Your task to perform on an android device: turn off location Image 0: 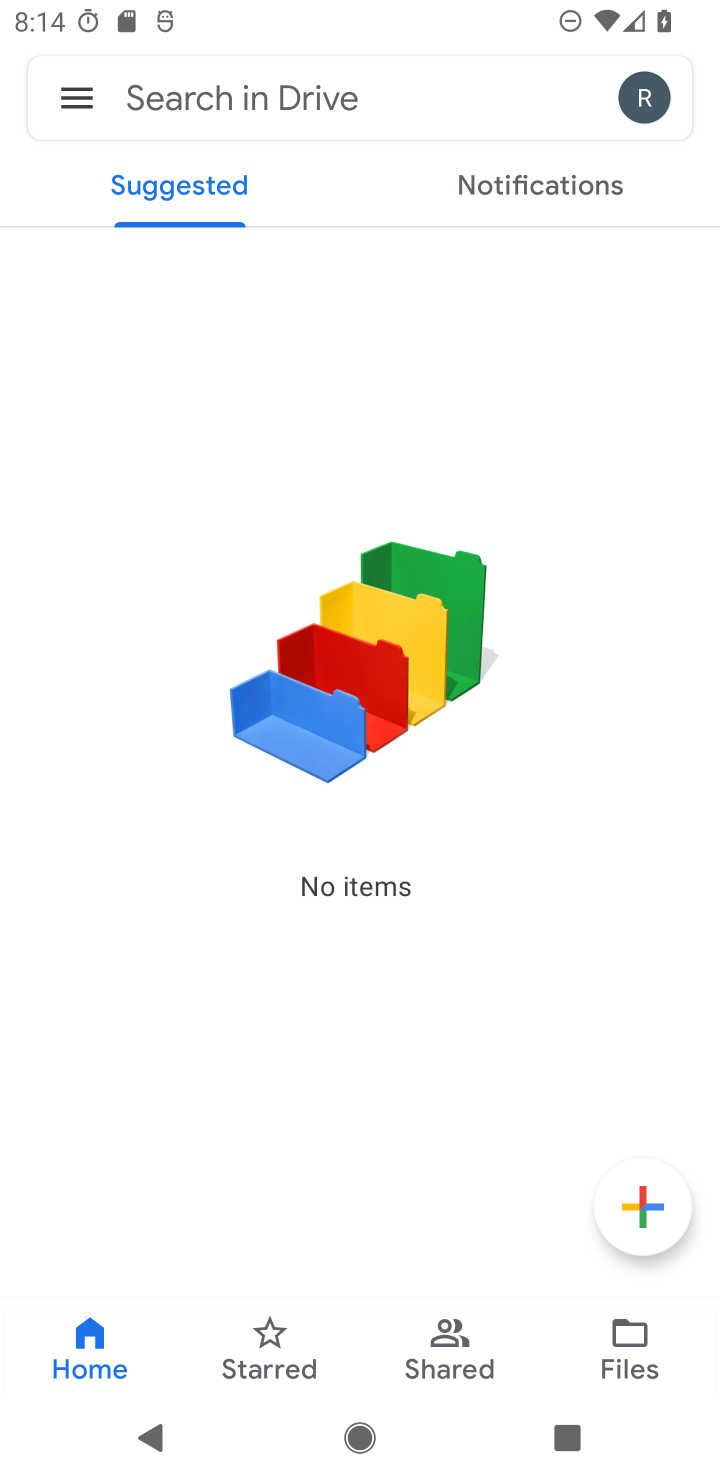
Step 0: press home button
Your task to perform on an android device: turn off location Image 1: 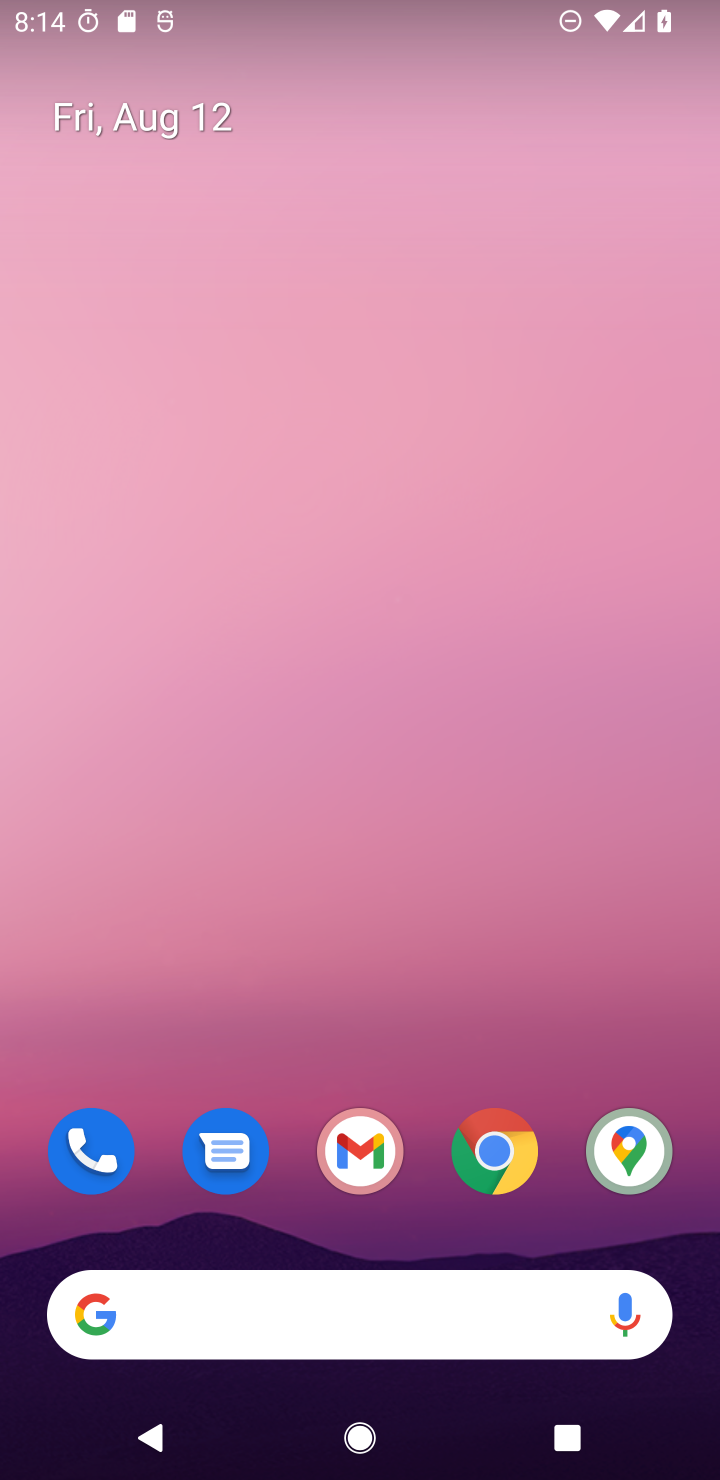
Step 1: drag from (426, 703) to (390, 66)
Your task to perform on an android device: turn off location Image 2: 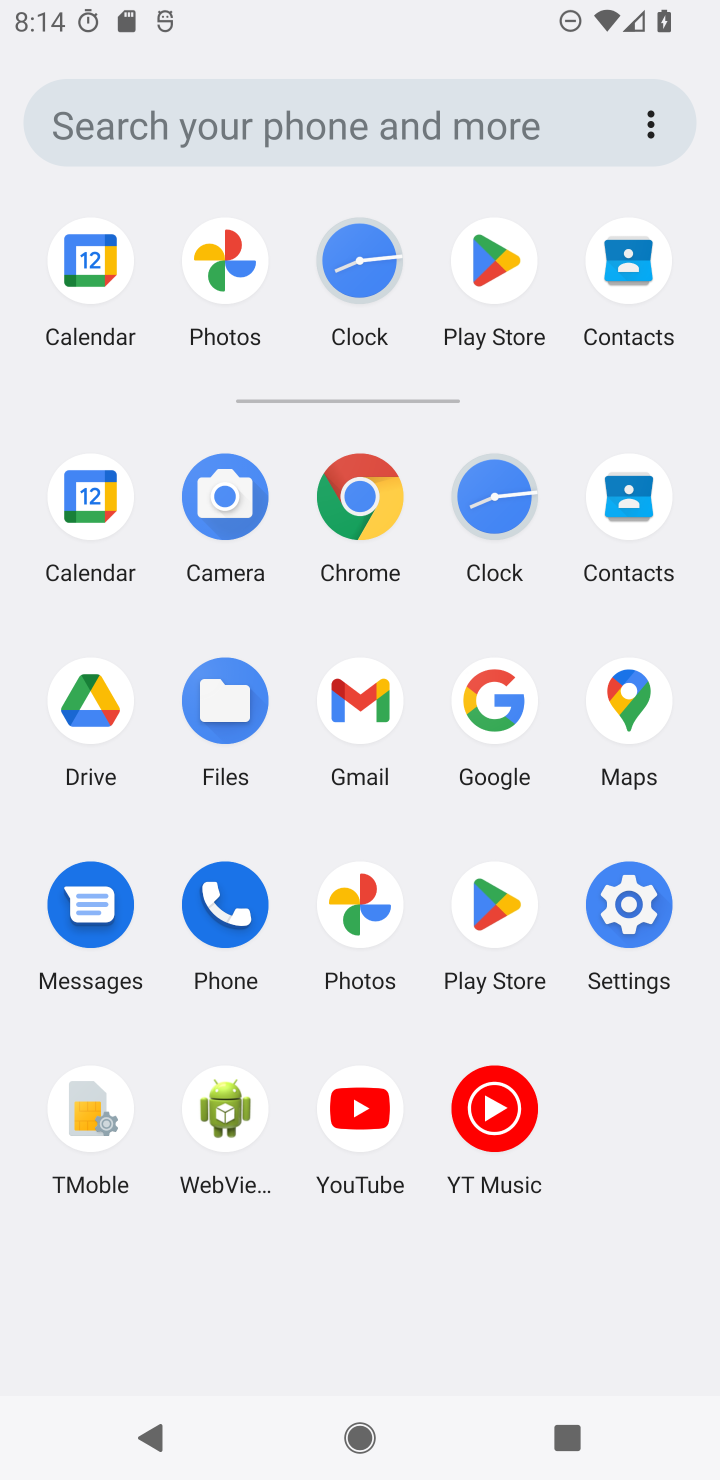
Step 2: click (640, 907)
Your task to perform on an android device: turn off location Image 3: 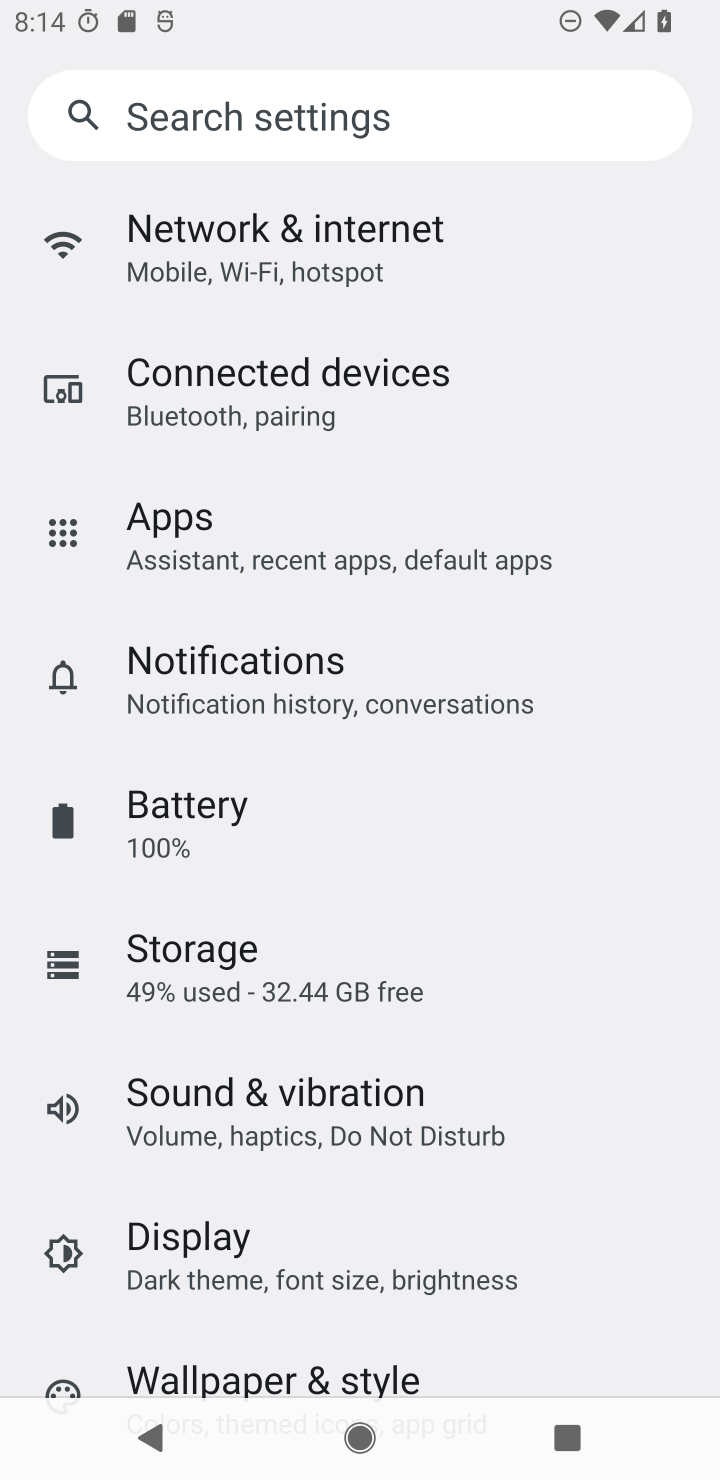
Step 3: drag from (530, 1249) to (621, 491)
Your task to perform on an android device: turn off location Image 4: 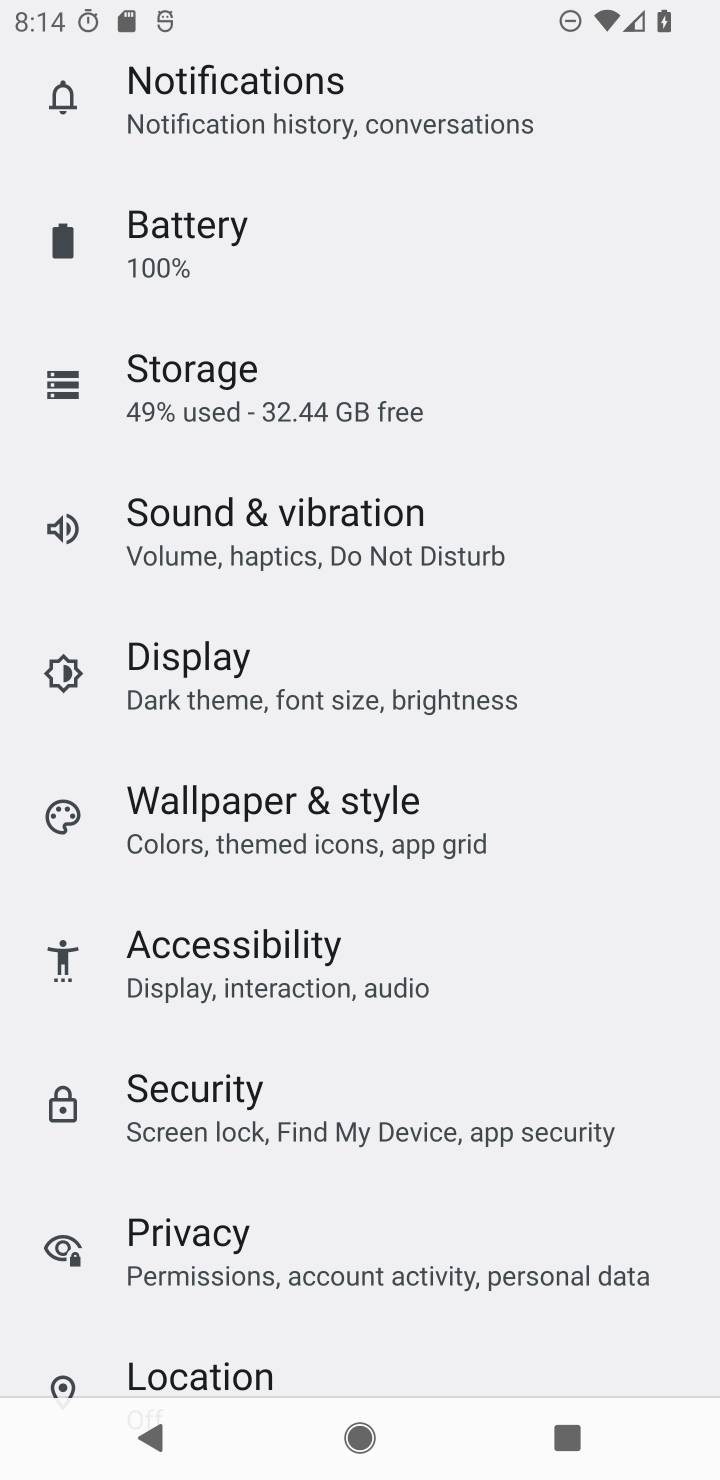
Step 4: click (195, 1376)
Your task to perform on an android device: turn off location Image 5: 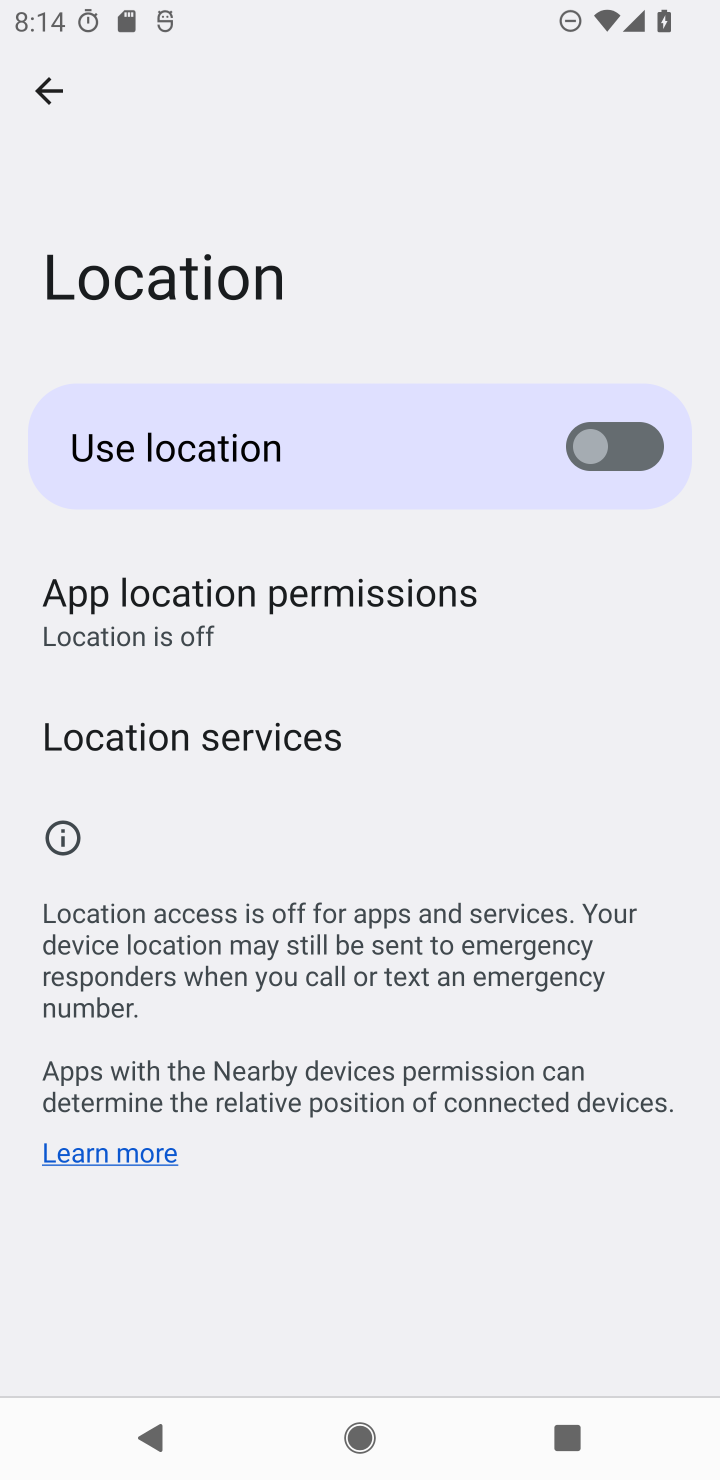
Step 5: task complete